Your task to perform on an android device: empty trash in the gmail app Image 0: 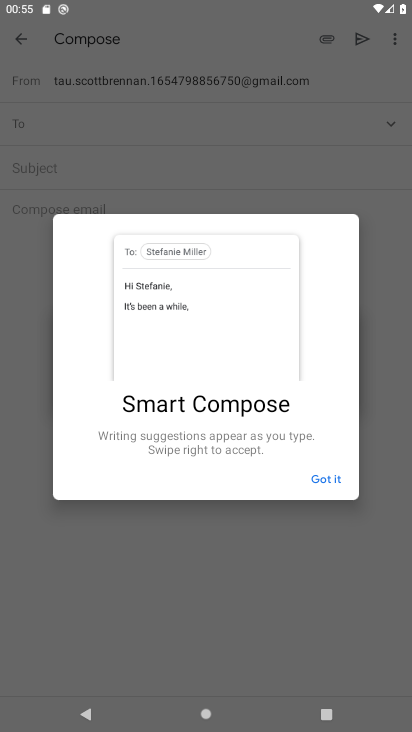
Step 0: press home button
Your task to perform on an android device: empty trash in the gmail app Image 1: 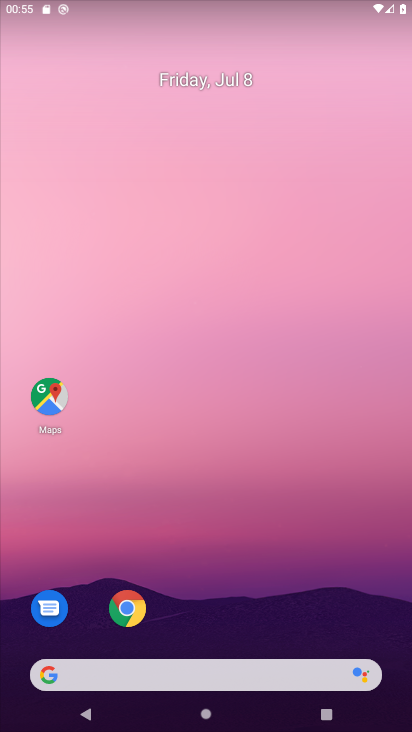
Step 1: drag from (140, 610) to (145, 207)
Your task to perform on an android device: empty trash in the gmail app Image 2: 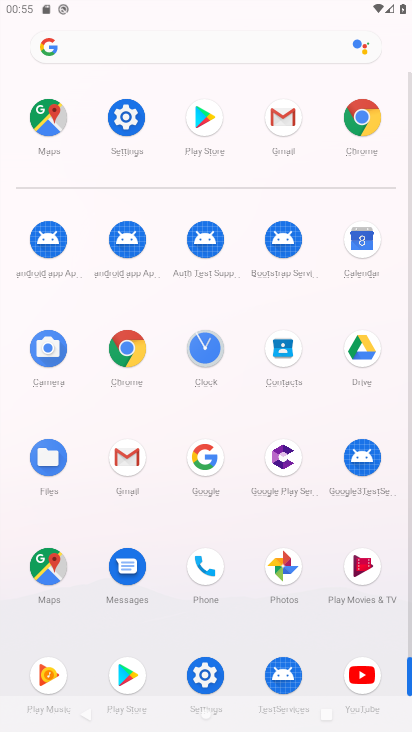
Step 2: click (286, 116)
Your task to perform on an android device: empty trash in the gmail app Image 3: 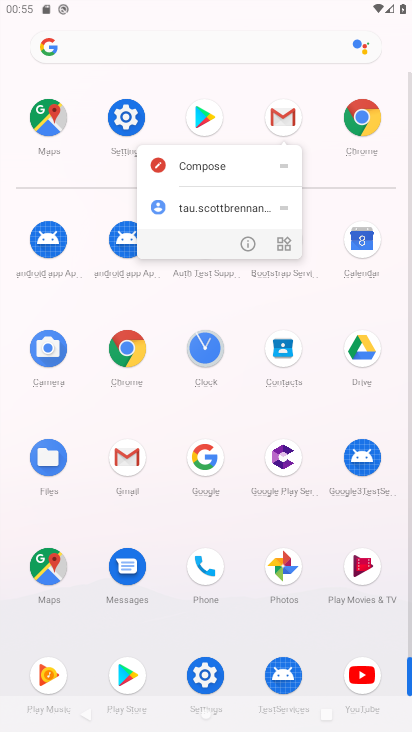
Step 3: click (280, 116)
Your task to perform on an android device: empty trash in the gmail app Image 4: 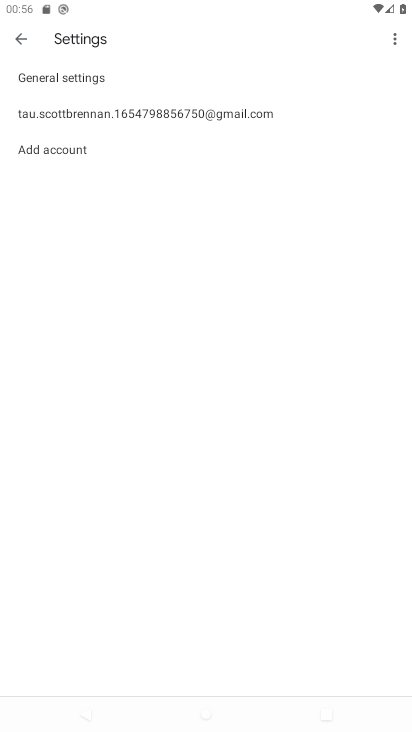
Step 4: click (81, 68)
Your task to perform on an android device: empty trash in the gmail app Image 5: 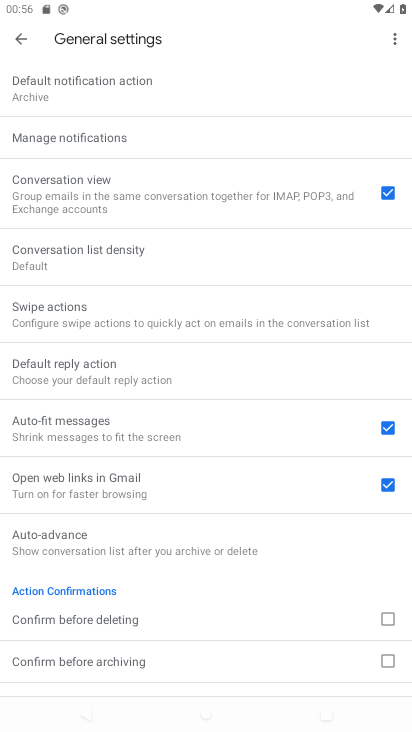
Step 5: click (16, 51)
Your task to perform on an android device: empty trash in the gmail app Image 6: 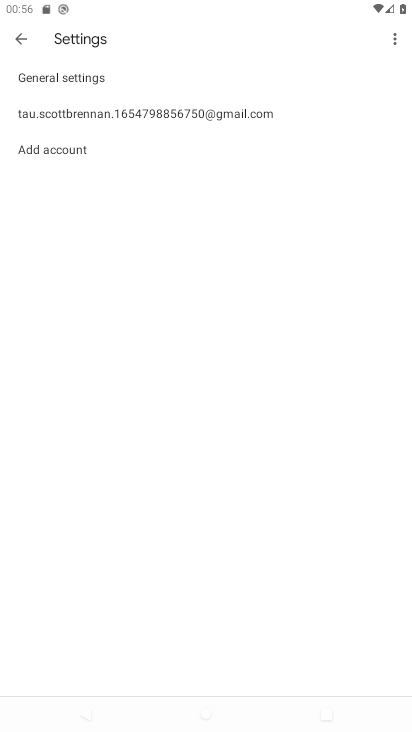
Step 6: click (70, 107)
Your task to perform on an android device: empty trash in the gmail app Image 7: 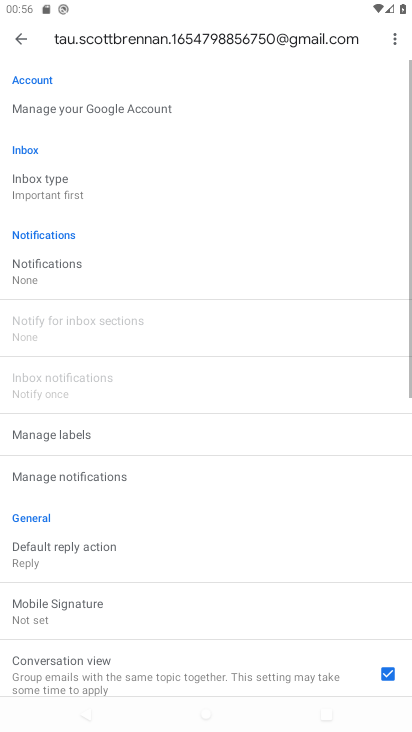
Step 7: click (21, 37)
Your task to perform on an android device: empty trash in the gmail app Image 8: 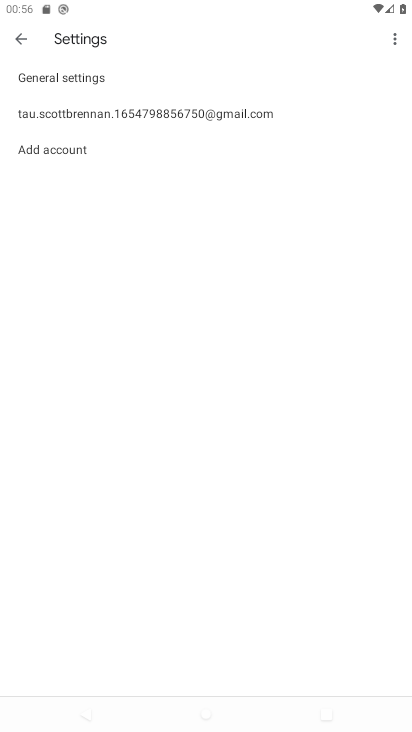
Step 8: click (21, 37)
Your task to perform on an android device: empty trash in the gmail app Image 9: 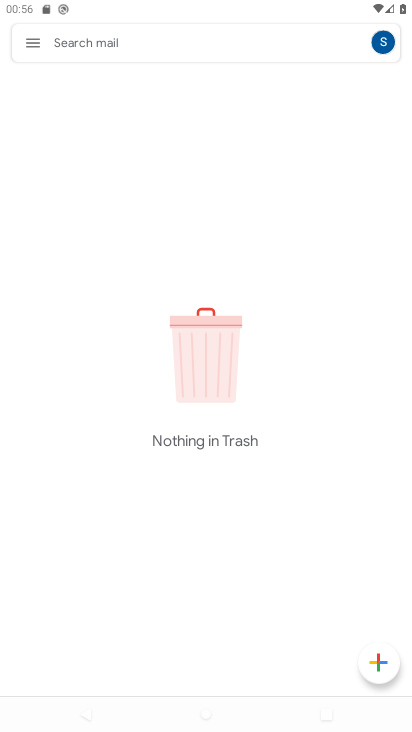
Step 9: task complete